Your task to perform on an android device: Open Google Maps Image 0: 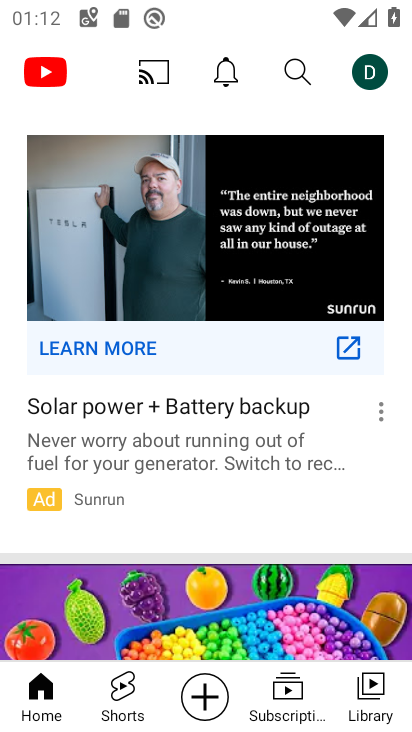
Step 0: press home button
Your task to perform on an android device: Open Google Maps Image 1: 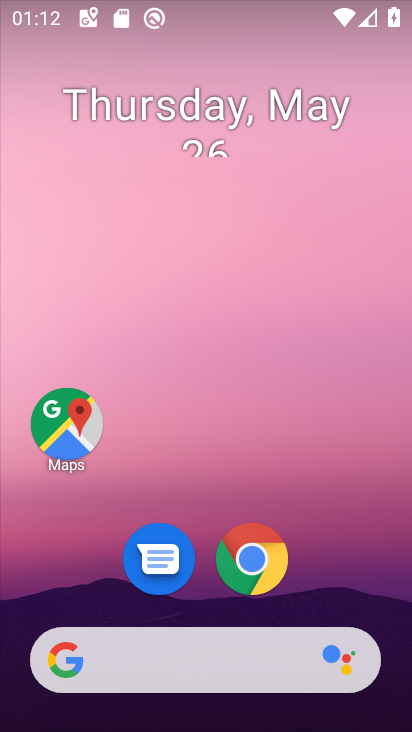
Step 1: click (73, 428)
Your task to perform on an android device: Open Google Maps Image 2: 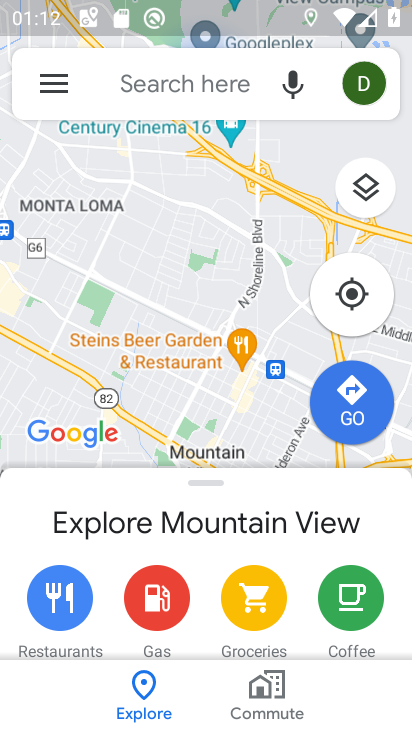
Step 2: task complete